Your task to perform on an android device: turn smart compose on in the gmail app Image 0: 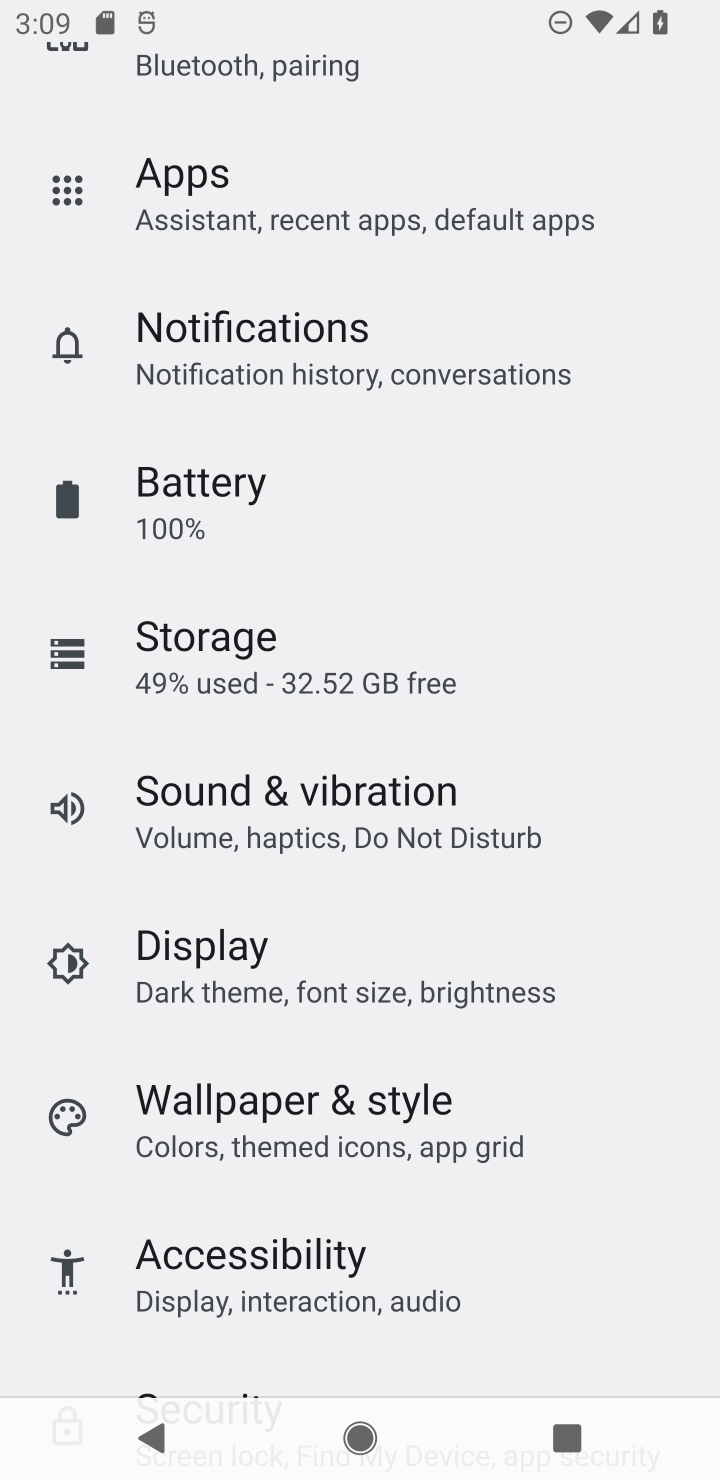
Step 0: press home button
Your task to perform on an android device: turn smart compose on in the gmail app Image 1: 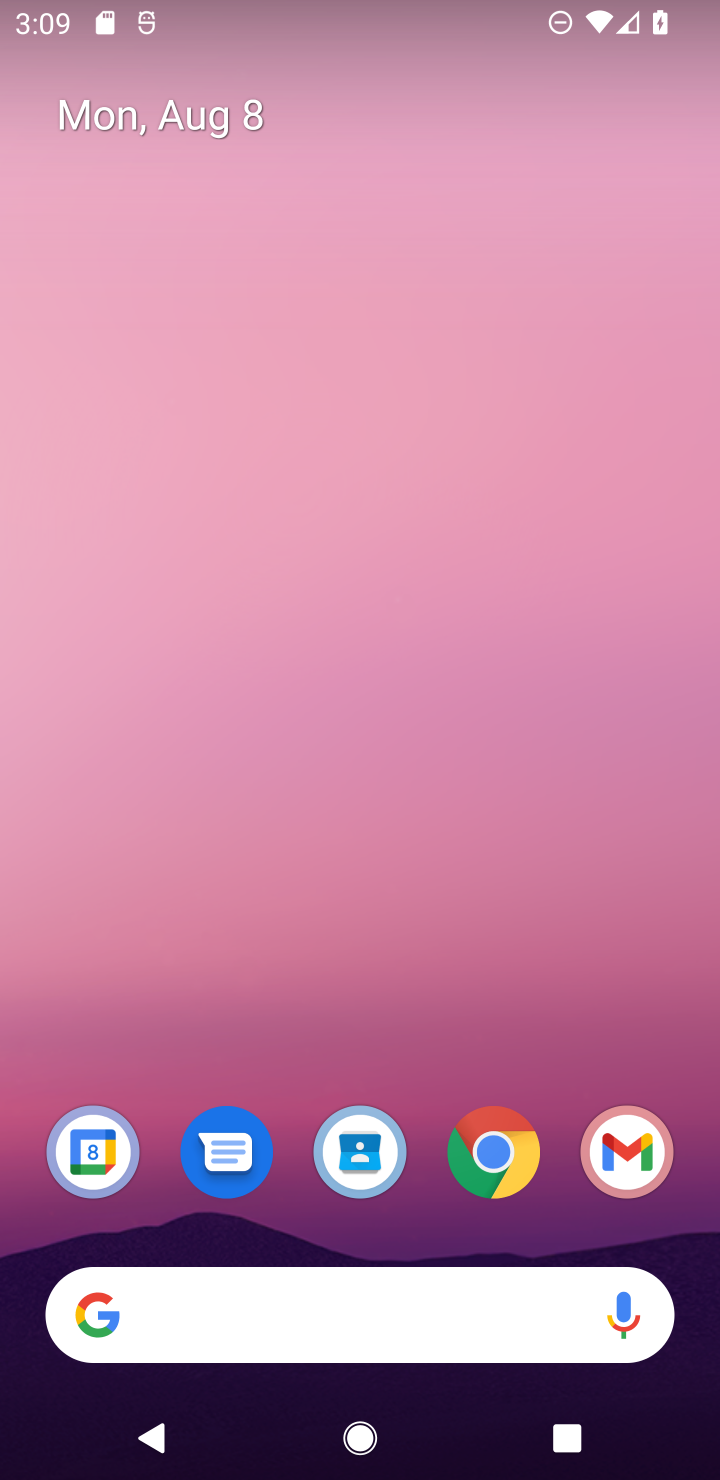
Step 1: drag from (311, 1048) to (392, 275)
Your task to perform on an android device: turn smart compose on in the gmail app Image 2: 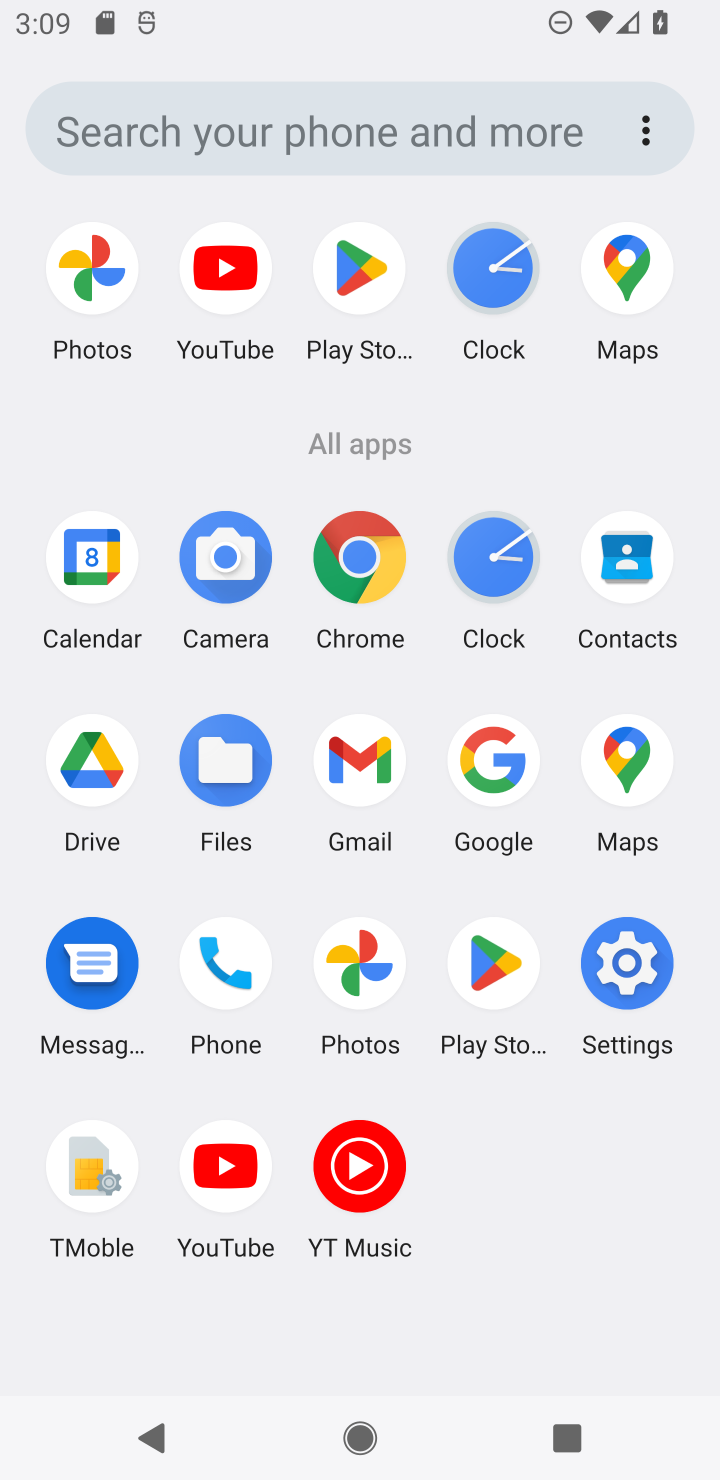
Step 2: click (379, 747)
Your task to perform on an android device: turn smart compose on in the gmail app Image 3: 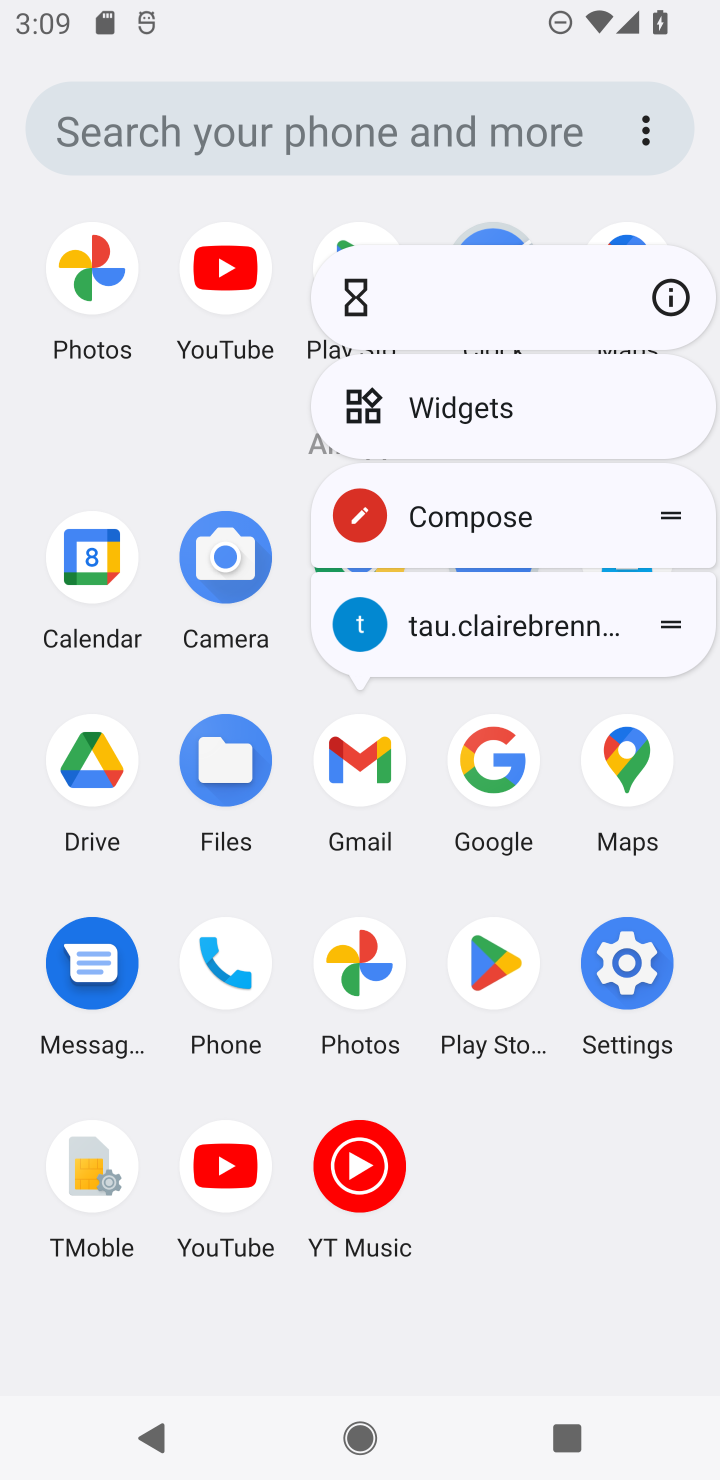
Step 3: click (348, 753)
Your task to perform on an android device: turn smart compose on in the gmail app Image 4: 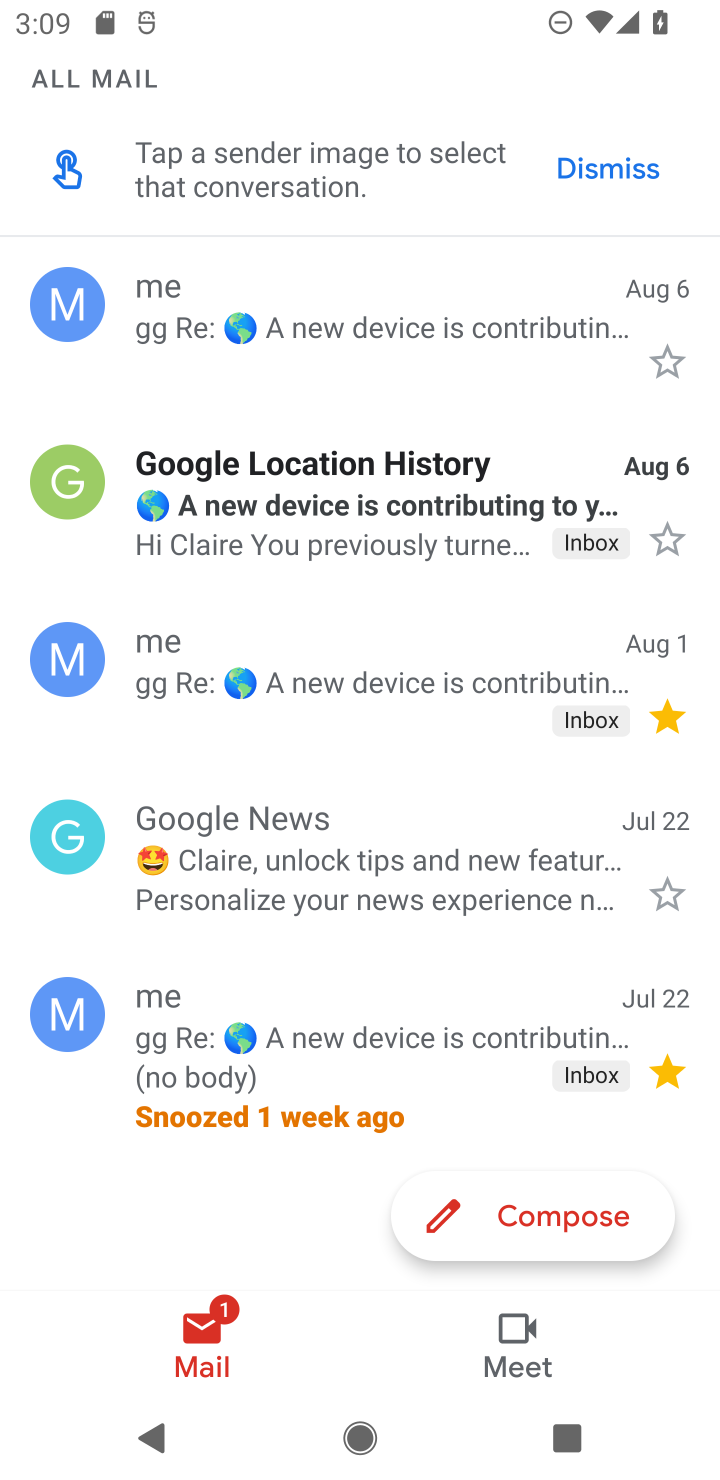
Step 4: drag from (248, 304) to (306, 897)
Your task to perform on an android device: turn smart compose on in the gmail app Image 5: 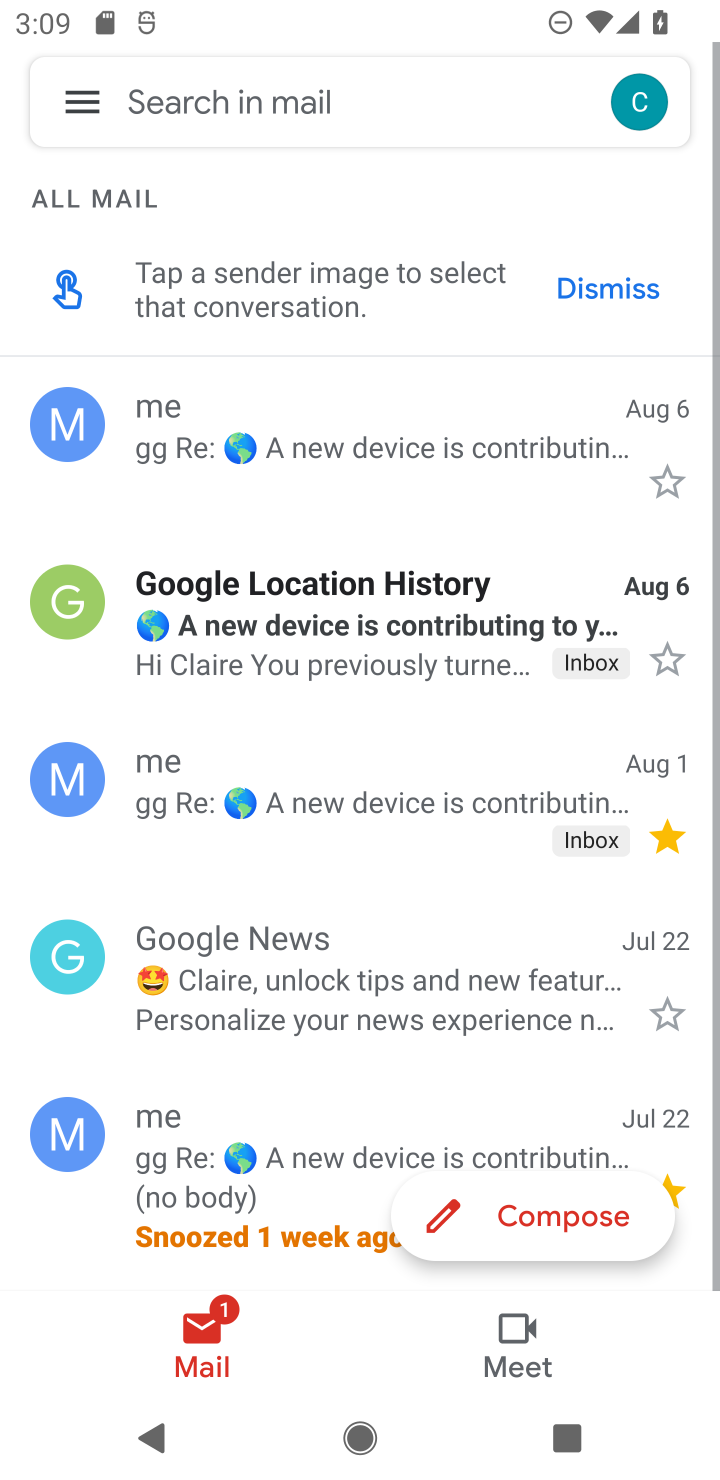
Step 5: click (73, 99)
Your task to perform on an android device: turn smart compose on in the gmail app Image 6: 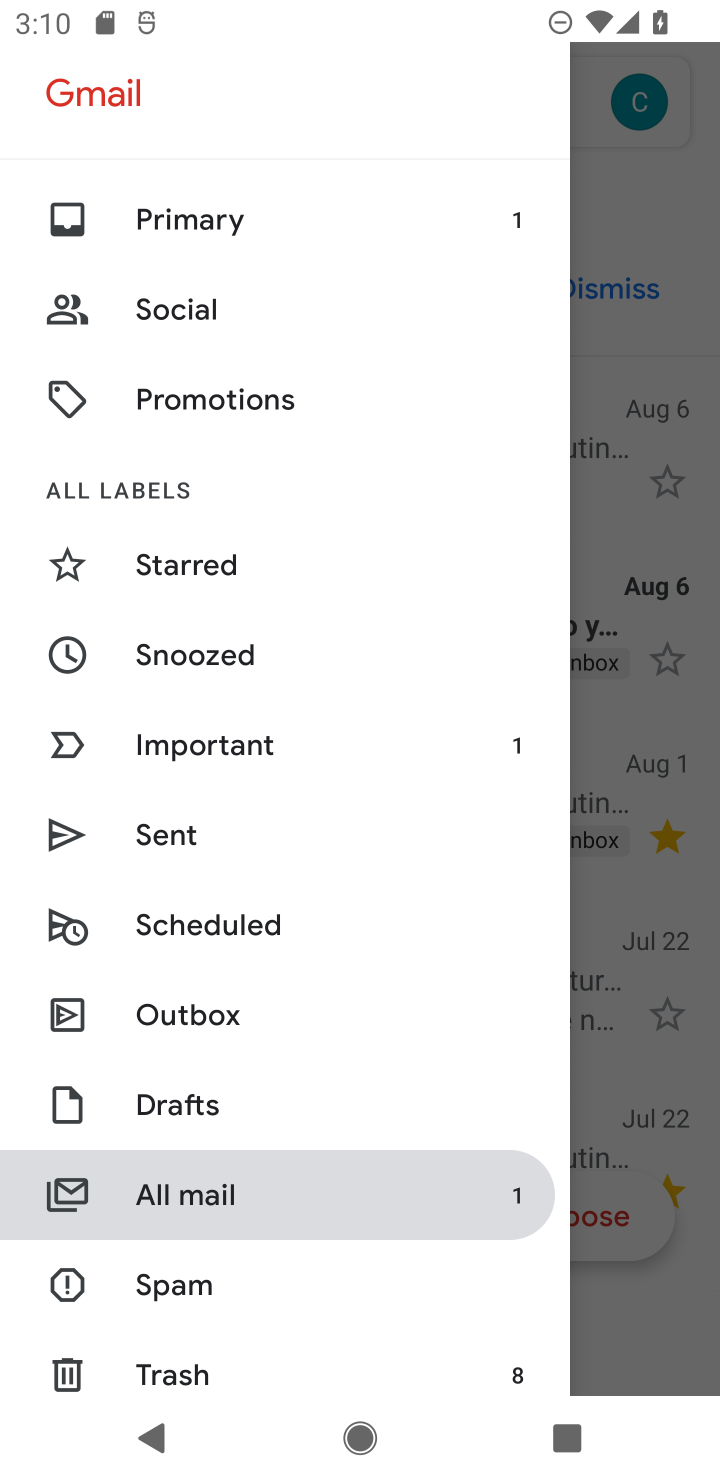
Step 6: drag from (196, 1194) to (303, 222)
Your task to perform on an android device: turn smart compose on in the gmail app Image 7: 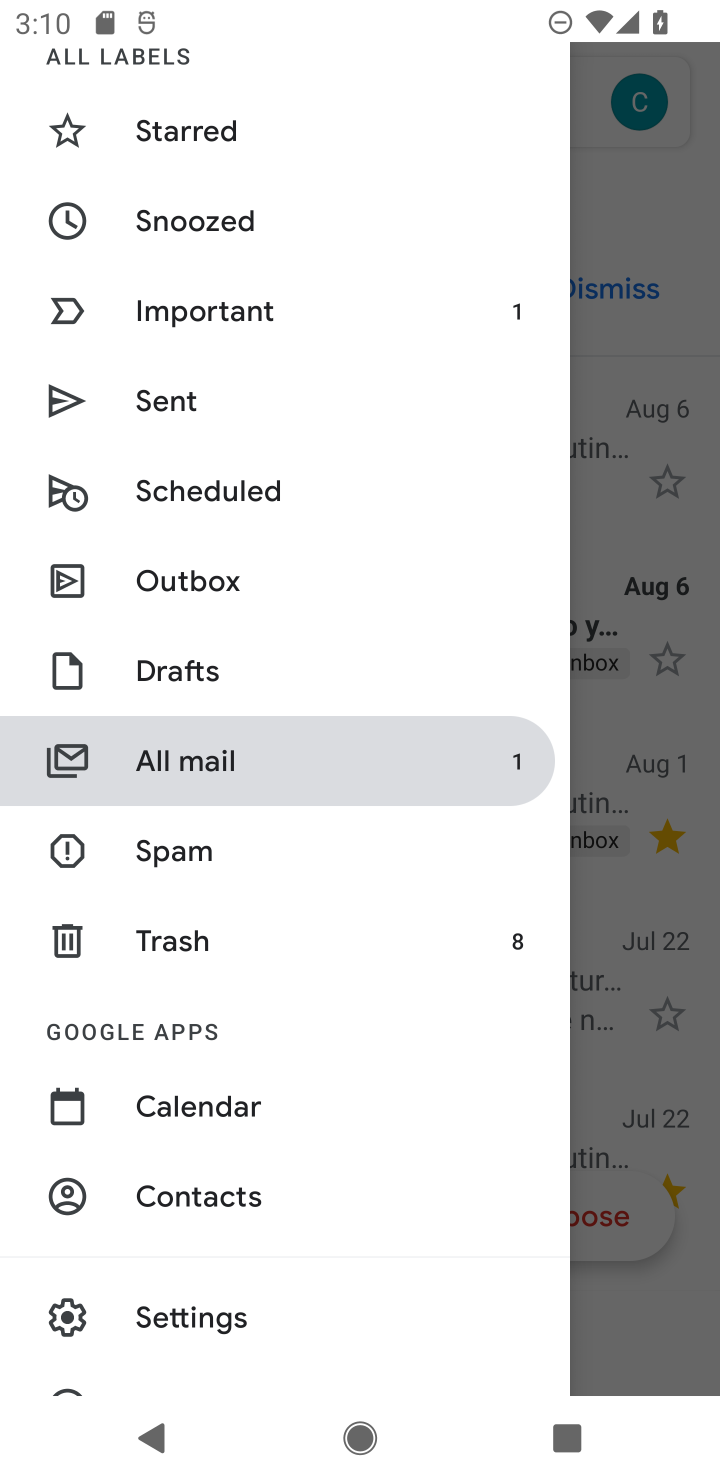
Step 7: click (215, 1307)
Your task to perform on an android device: turn smart compose on in the gmail app Image 8: 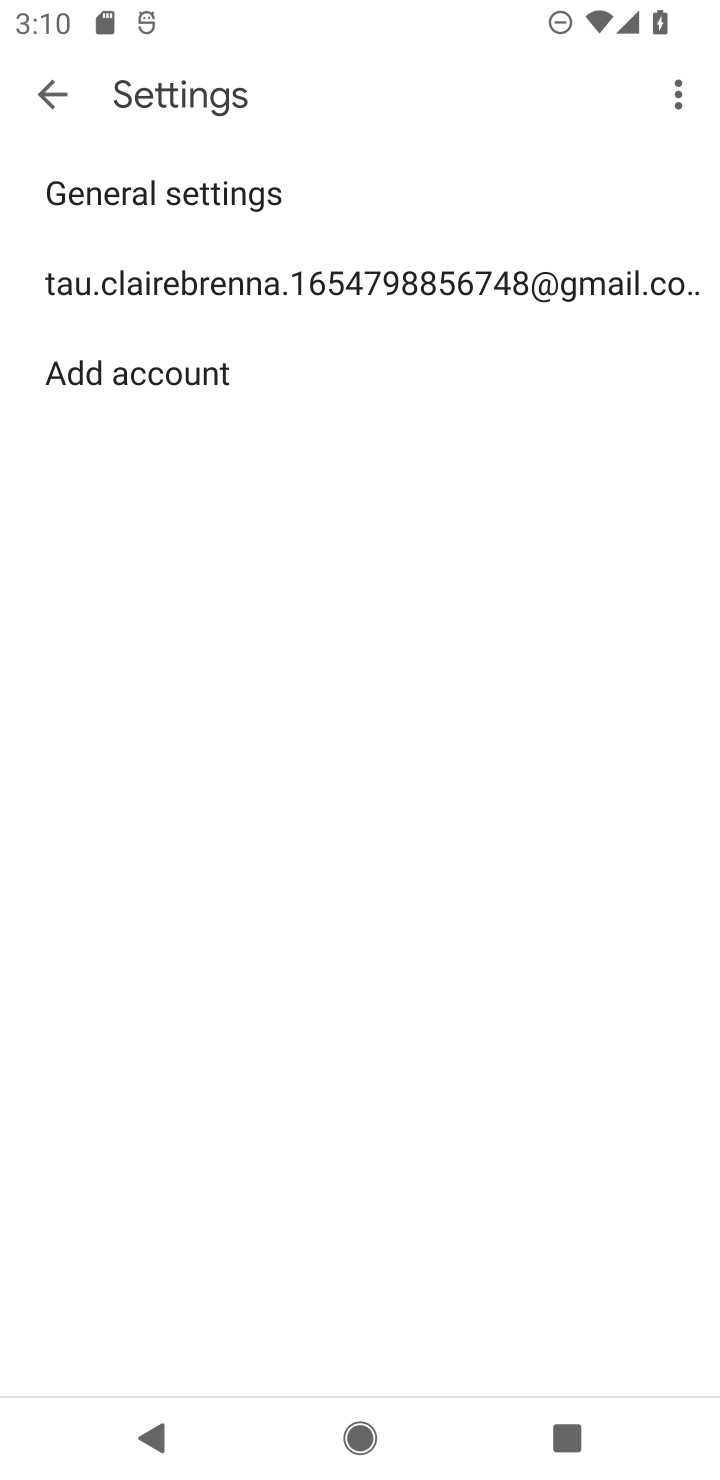
Step 8: click (284, 269)
Your task to perform on an android device: turn smart compose on in the gmail app Image 9: 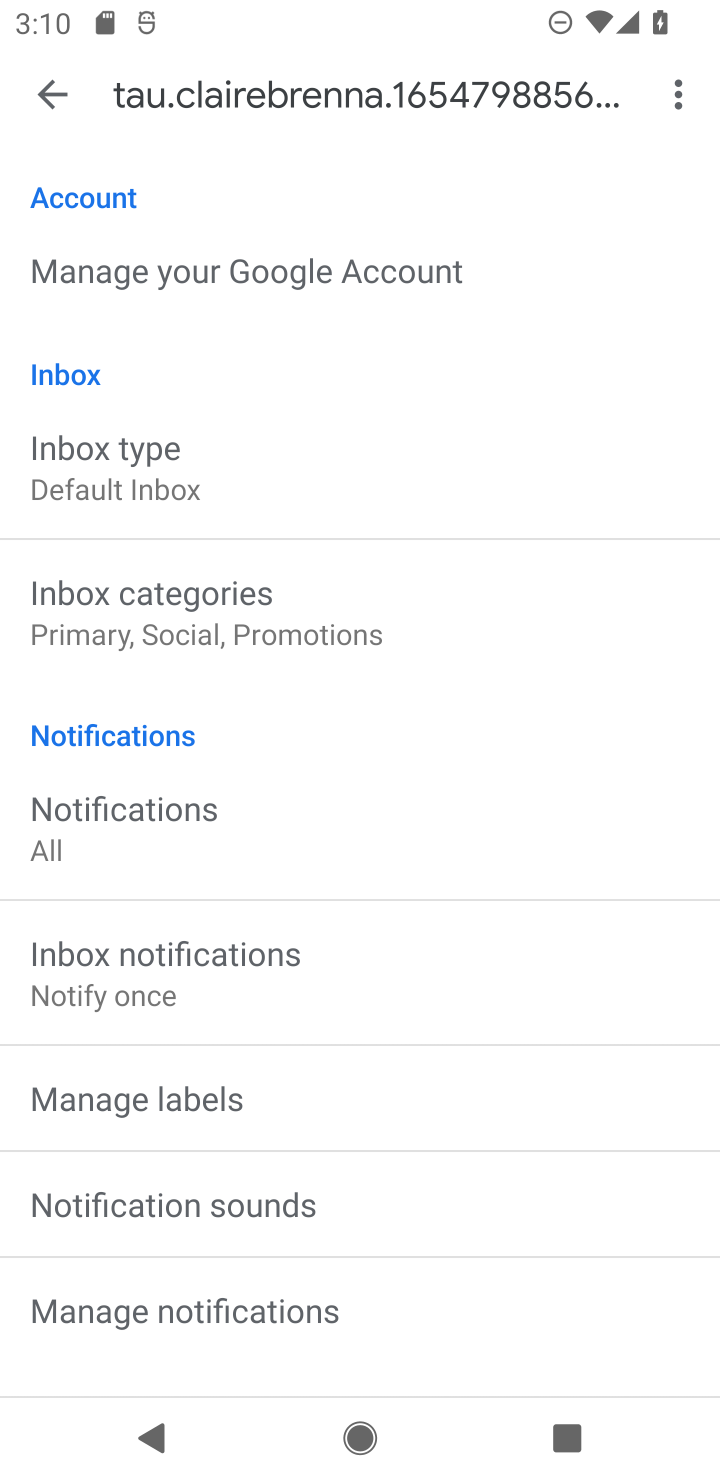
Step 9: task complete